Your task to perform on an android device: find snoozed emails in the gmail app Image 0: 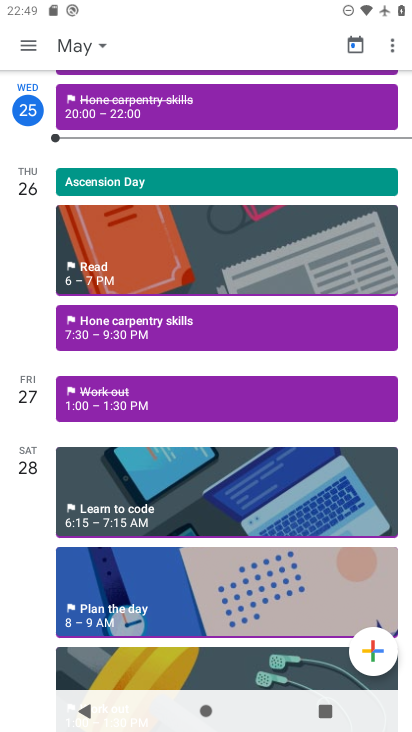
Step 0: press home button
Your task to perform on an android device: find snoozed emails in the gmail app Image 1: 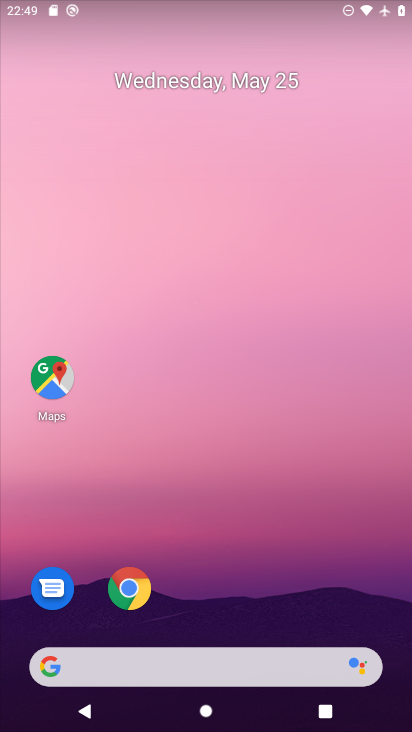
Step 1: drag from (277, 527) to (270, 34)
Your task to perform on an android device: find snoozed emails in the gmail app Image 2: 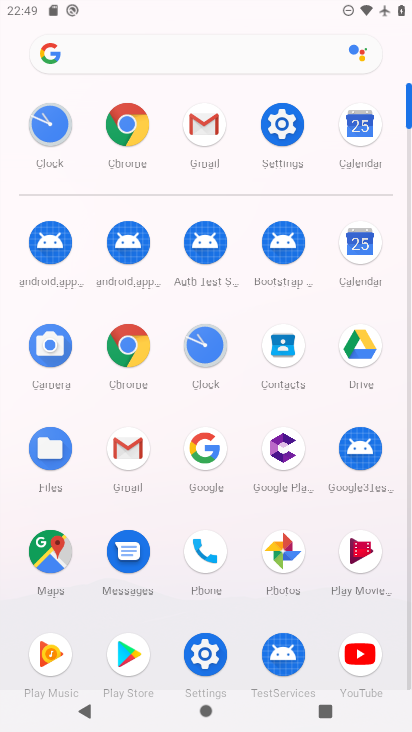
Step 2: click (202, 133)
Your task to perform on an android device: find snoozed emails in the gmail app Image 3: 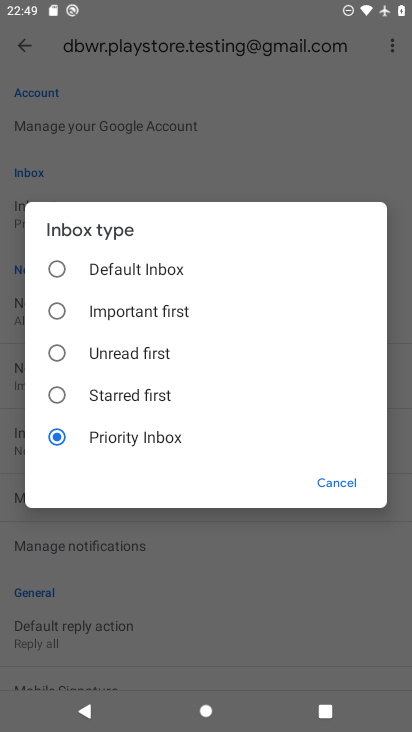
Step 3: click (21, 32)
Your task to perform on an android device: find snoozed emails in the gmail app Image 4: 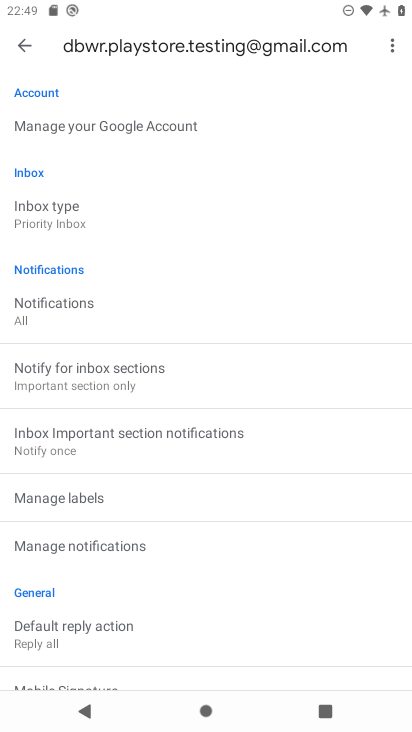
Step 4: click (16, 47)
Your task to perform on an android device: find snoozed emails in the gmail app Image 5: 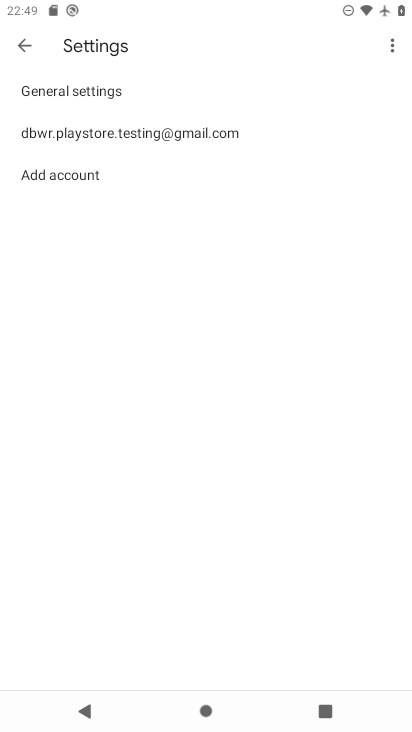
Step 5: click (17, 46)
Your task to perform on an android device: find snoozed emails in the gmail app Image 6: 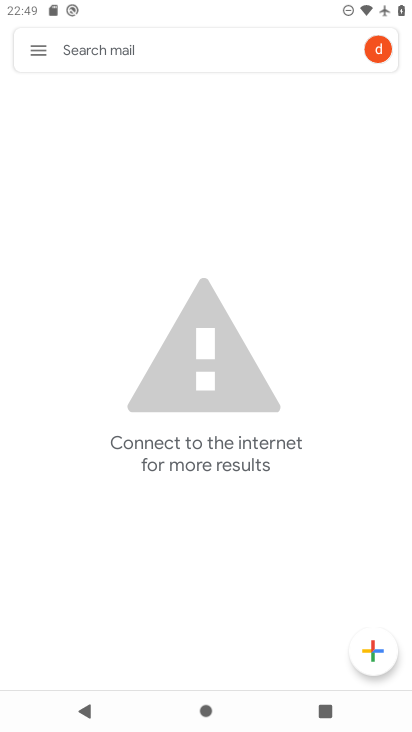
Step 6: click (18, 46)
Your task to perform on an android device: find snoozed emails in the gmail app Image 7: 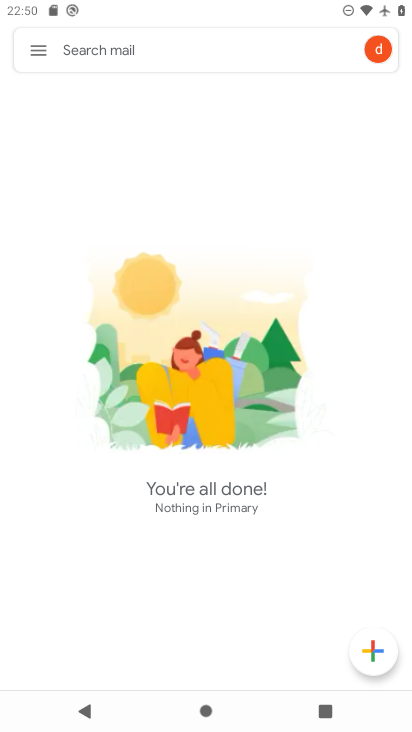
Step 7: click (39, 51)
Your task to perform on an android device: find snoozed emails in the gmail app Image 8: 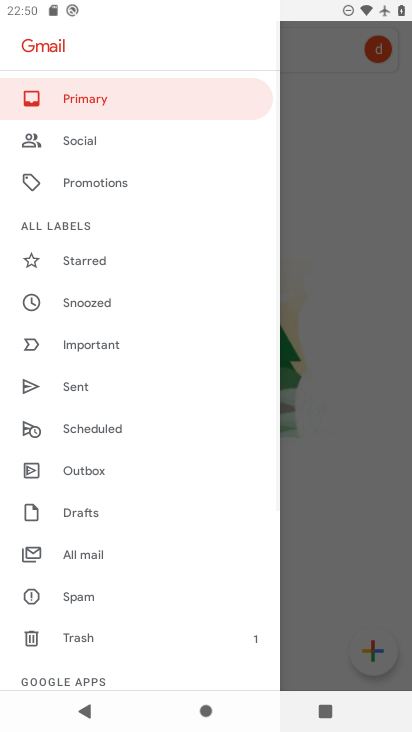
Step 8: click (108, 295)
Your task to perform on an android device: find snoozed emails in the gmail app Image 9: 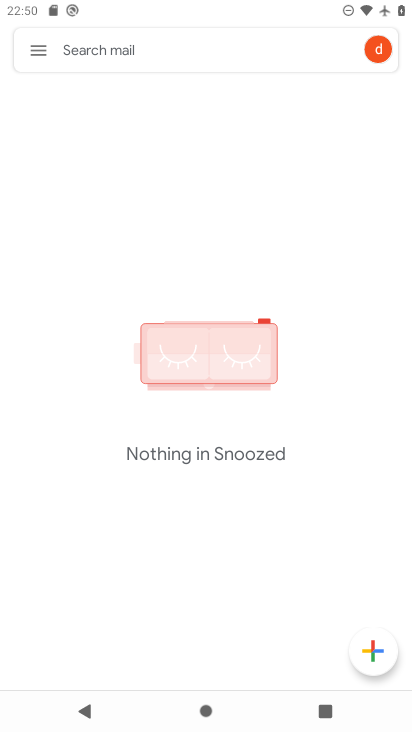
Step 9: task complete